Your task to perform on an android device: Open calendar and show me the first week of next month Image 0: 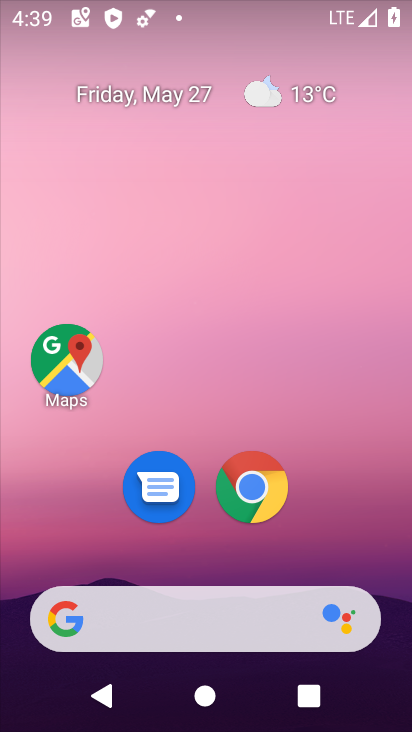
Step 0: drag from (342, 468) to (293, 40)
Your task to perform on an android device: Open calendar and show me the first week of next month Image 1: 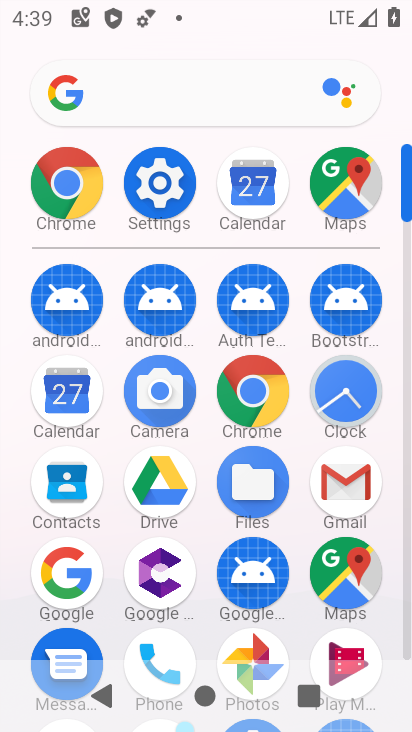
Step 1: click (65, 407)
Your task to perform on an android device: Open calendar and show me the first week of next month Image 2: 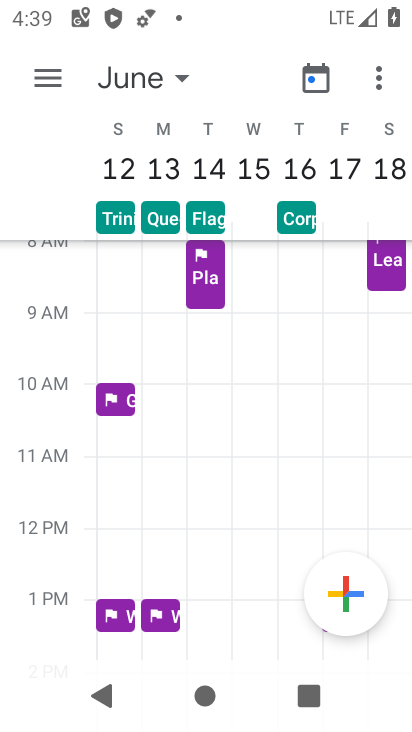
Step 2: click (172, 77)
Your task to perform on an android device: Open calendar and show me the first week of next month Image 3: 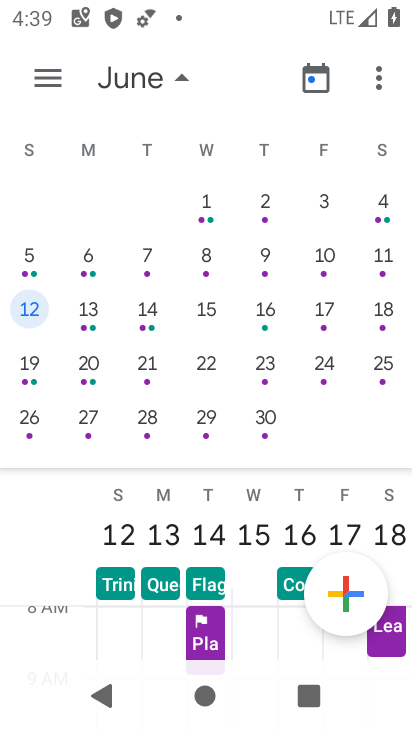
Step 3: click (31, 260)
Your task to perform on an android device: Open calendar and show me the first week of next month Image 4: 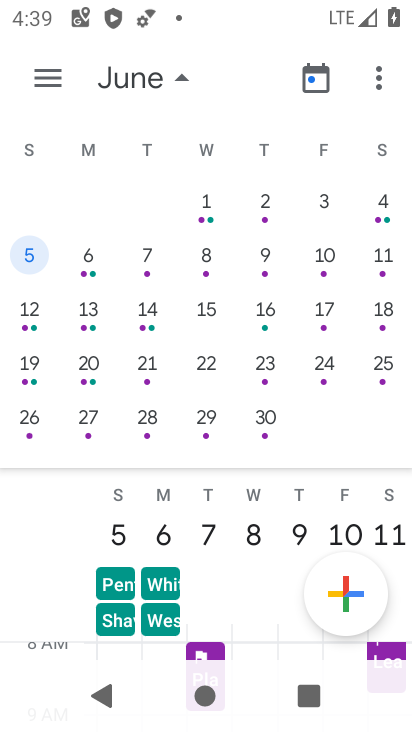
Step 4: task complete